Your task to perform on an android device: turn on data saver in the chrome app Image 0: 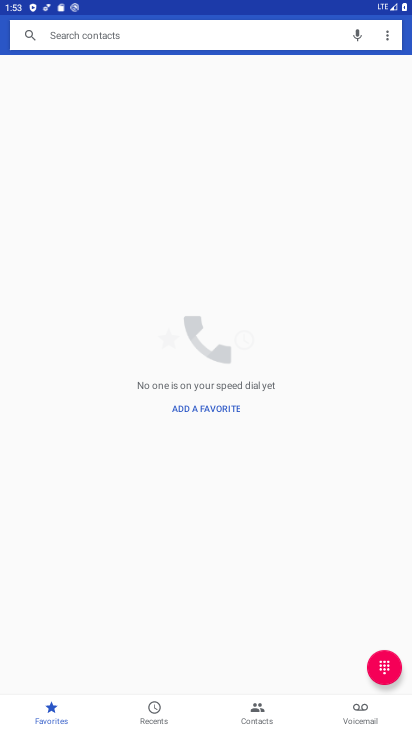
Step 0: press home button
Your task to perform on an android device: turn on data saver in the chrome app Image 1: 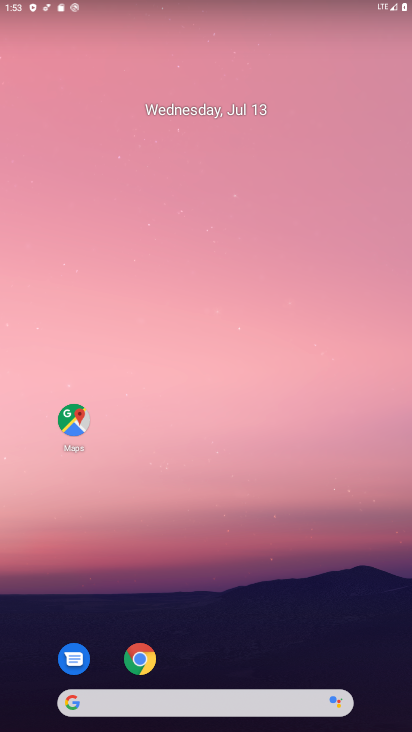
Step 1: click (140, 654)
Your task to perform on an android device: turn on data saver in the chrome app Image 2: 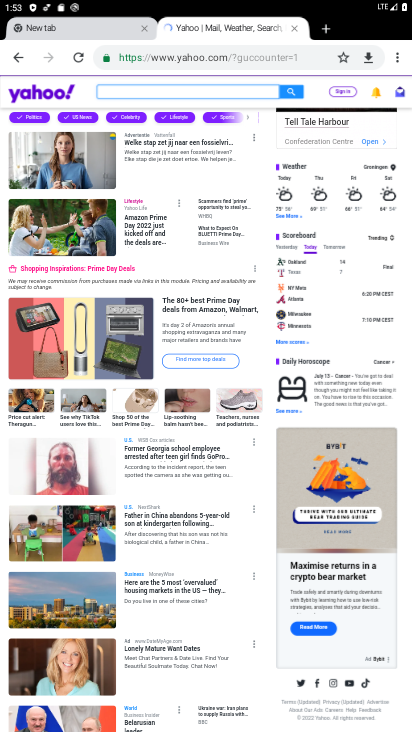
Step 2: click (393, 60)
Your task to perform on an android device: turn on data saver in the chrome app Image 3: 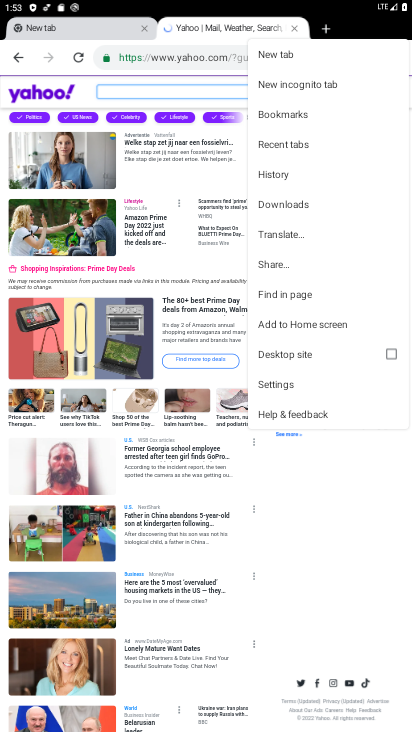
Step 3: click (278, 382)
Your task to perform on an android device: turn on data saver in the chrome app Image 4: 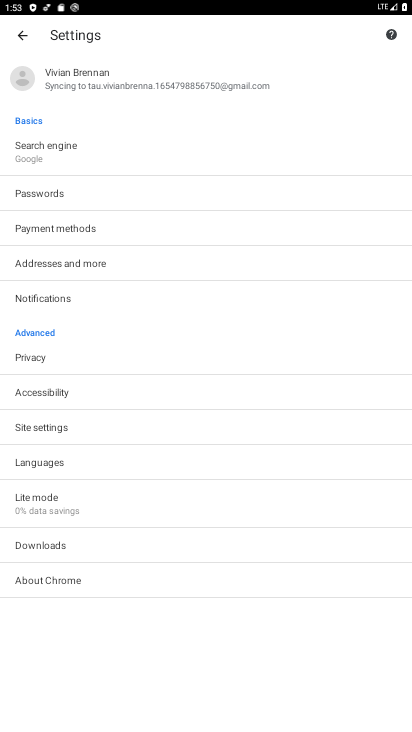
Step 4: click (33, 508)
Your task to perform on an android device: turn on data saver in the chrome app Image 5: 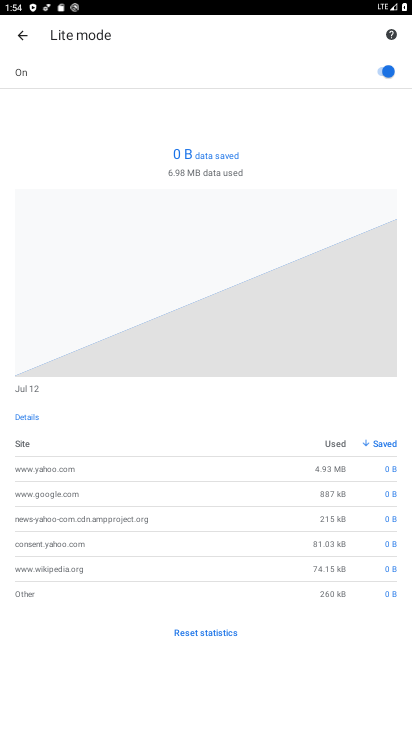
Step 5: task complete